Your task to perform on an android device: Show me popular games on the Play Store Image 0: 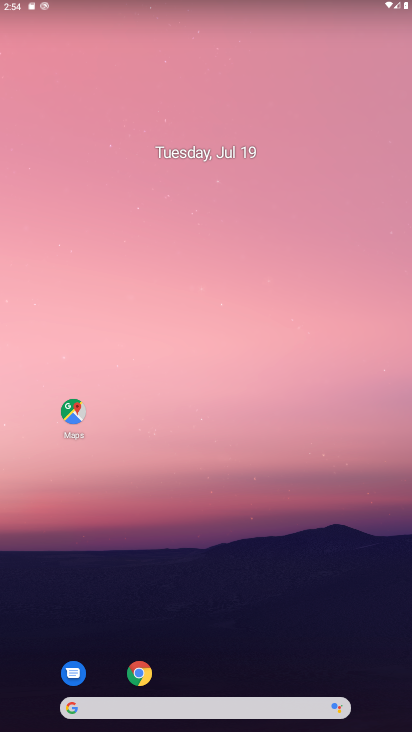
Step 0: drag from (231, 637) to (225, 107)
Your task to perform on an android device: Show me popular games on the Play Store Image 1: 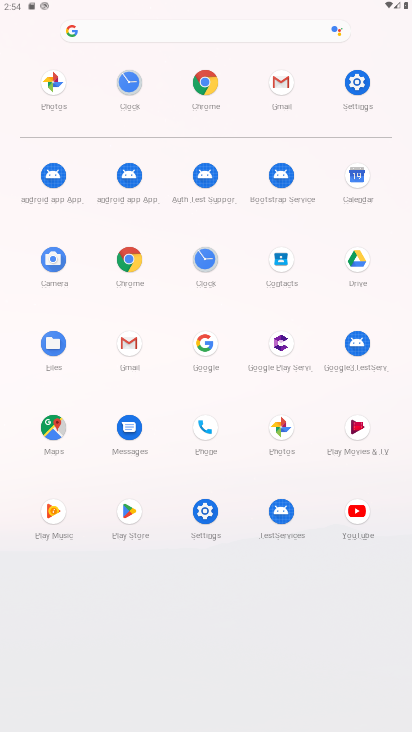
Step 1: click (138, 526)
Your task to perform on an android device: Show me popular games on the Play Store Image 2: 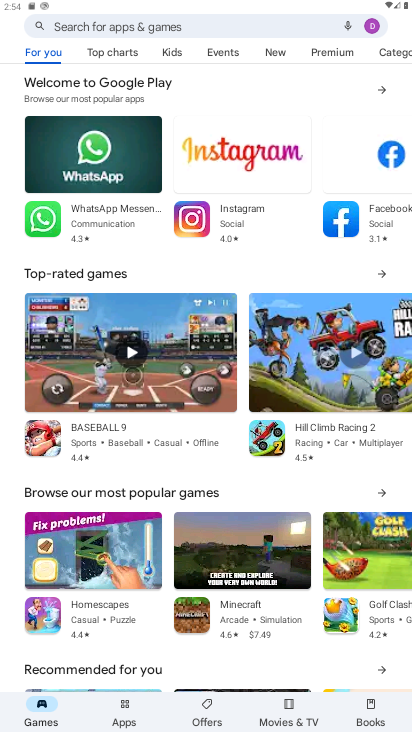
Step 2: click (117, 55)
Your task to perform on an android device: Show me popular games on the Play Store Image 3: 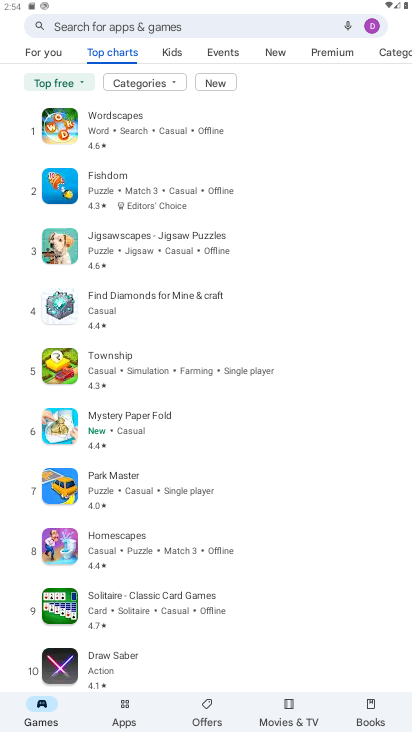
Step 3: click (117, 54)
Your task to perform on an android device: Show me popular games on the Play Store Image 4: 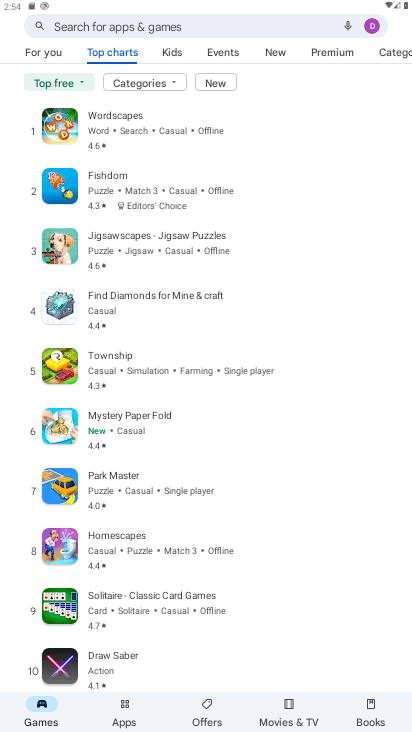
Step 4: task complete